Your task to perform on an android device: Is it going to rain tomorrow? Image 0: 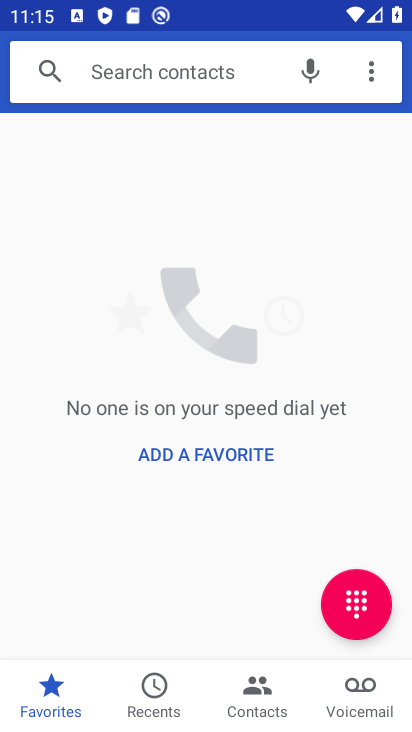
Step 0: press home button
Your task to perform on an android device: Is it going to rain tomorrow? Image 1: 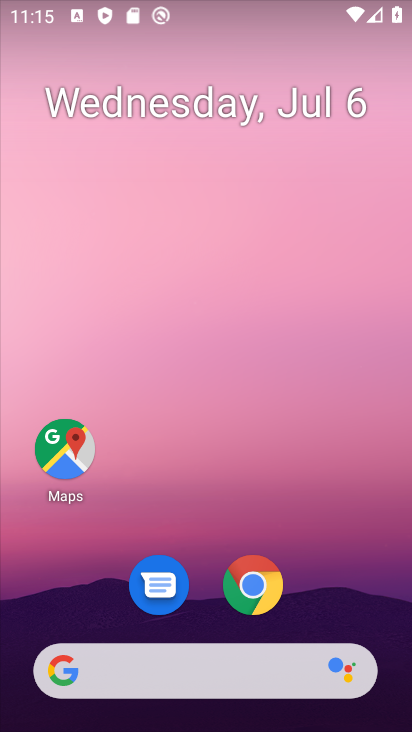
Step 1: click (158, 682)
Your task to perform on an android device: Is it going to rain tomorrow? Image 2: 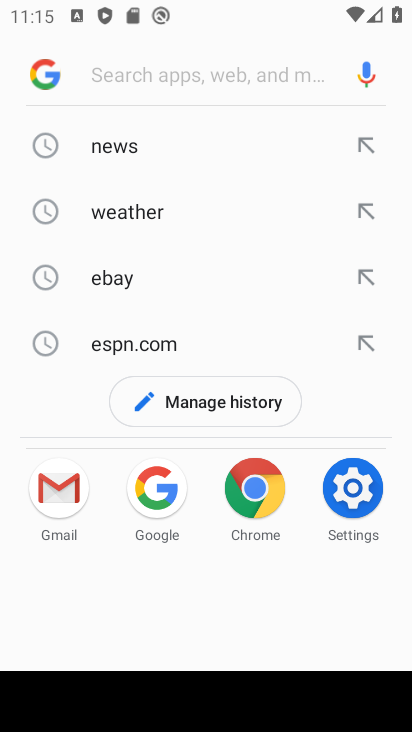
Step 2: click (143, 215)
Your task to perform on an android device: Is it going to rain tomorrow? Image 3: 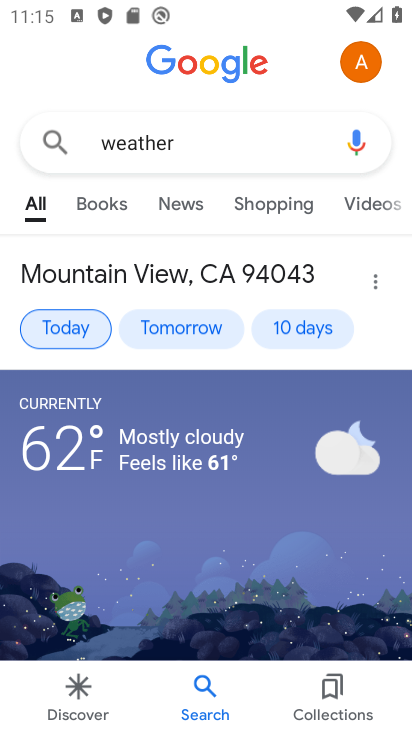
Step 3: click (88, 335)
Your task to perform on an android device: Is it going to rain tomorrow? Image 4: 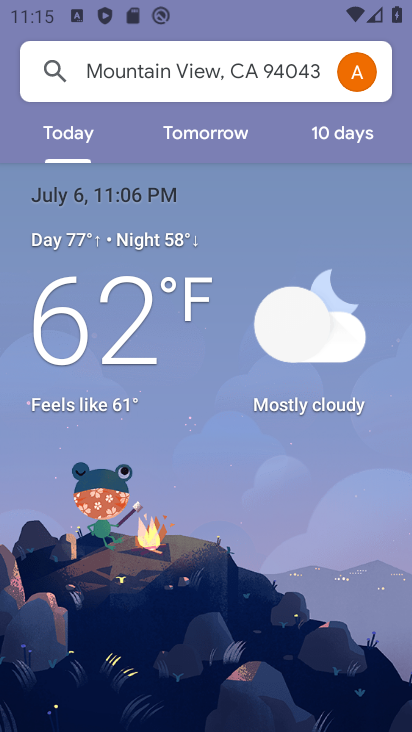
Step 4: click (213, 129)
Your task to perform on an android device: Is it going to rain tomorrow? Image 5: 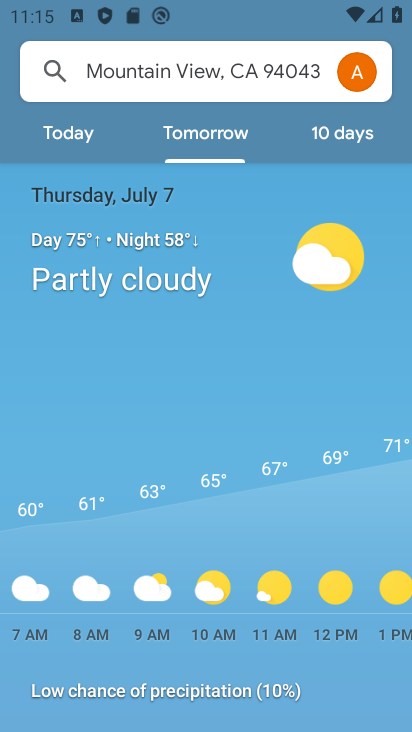
Step 5: task complete